Your task to perform on an android device: Open Google Maps and go to "Timeline" Image 0: 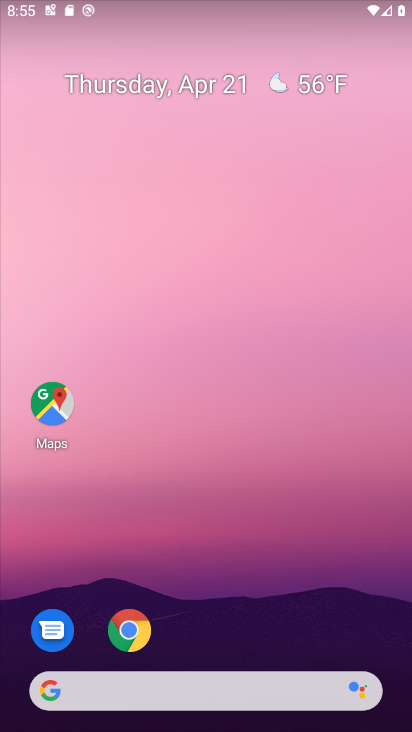
Step 0: drag from (187, 649) to (234, 77)
Your task to perform on an android device: Open Google Maps and go to "Timeline" Image 1: 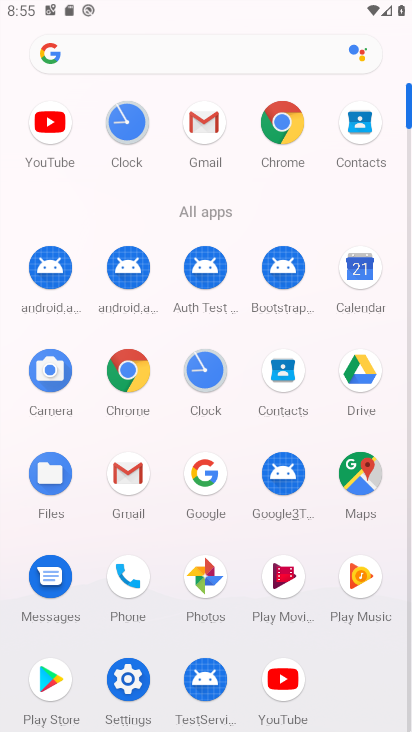
Step 1: click (359, 476)
Your task to perform on an android device: Open Google Maps and go to "Timeline" Image 2: 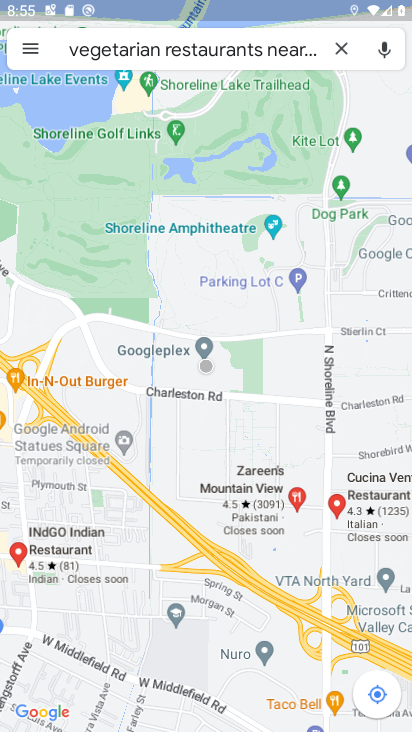
Step 2: click (22, 48)
Your task to perform on an android device: Open Google Maps and go to "Timeline" Image 3: 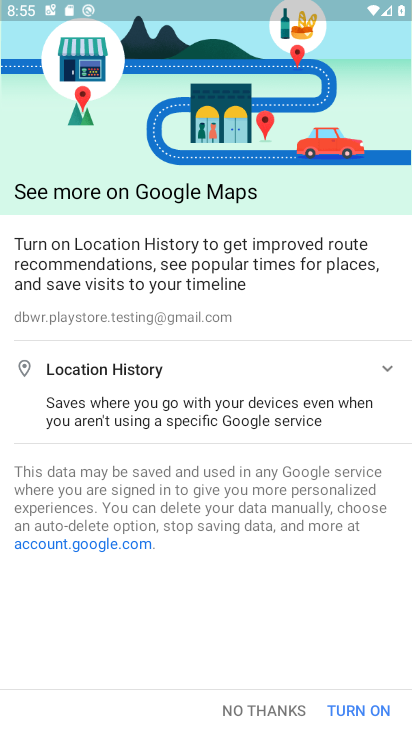
Step 3: click (270, 706)
Your task to perform on an android device: Open Google Maps and go to "Timeline" Image 4: 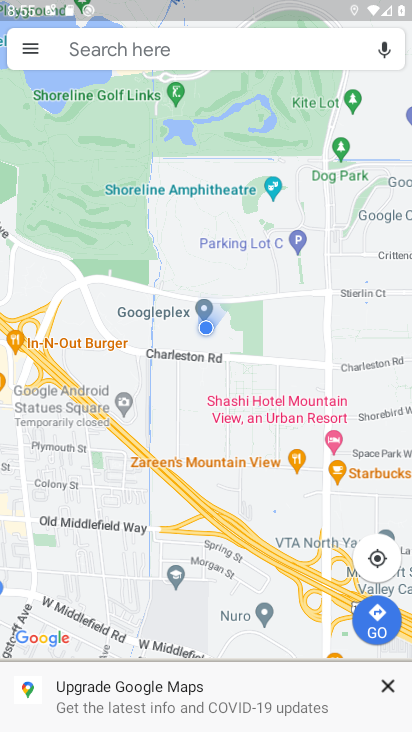
Step 4: click (30, 46)
Your task to perform on an android device: Open Google Maps and go to "Timeline" Image 5: 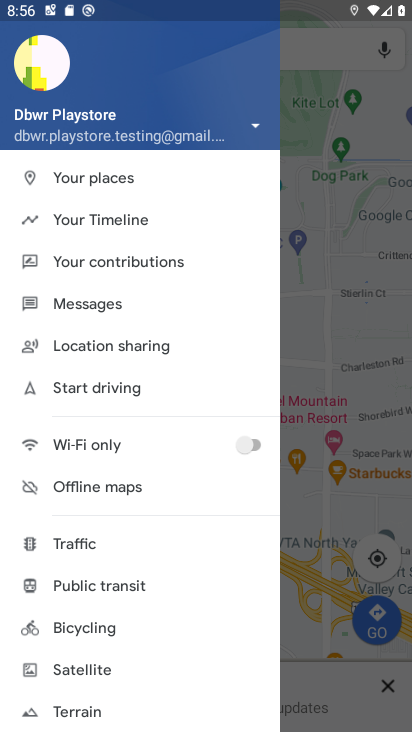
Step 5: click (120, 220)
Your task to perform on an android device: Open Google Maps and go to "Timeline" Image 6: 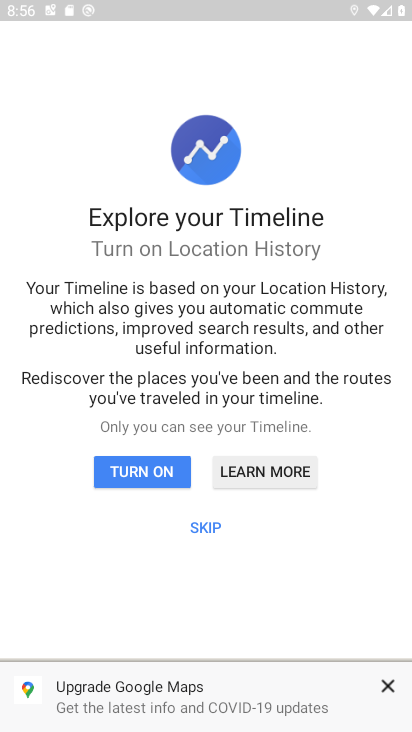
Step 6: click (210, 529)
Your task to perform on an android device: Open Google Maps and go to "Timeline" Image 7: 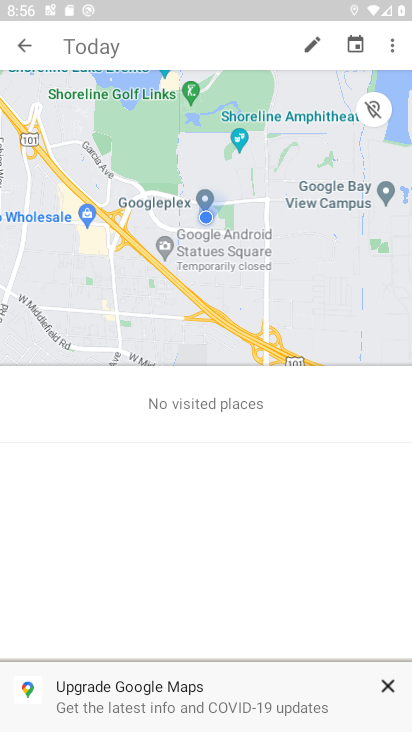
Step 7: task complete